Your task to perform on an android device: What's the weather? Image 0: 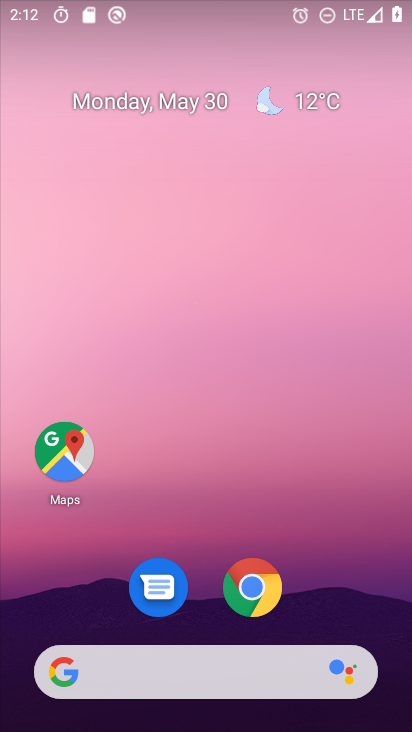
Step 0: click (308, 101)
Your task to perform on an android device: What's the weather? Image 1: 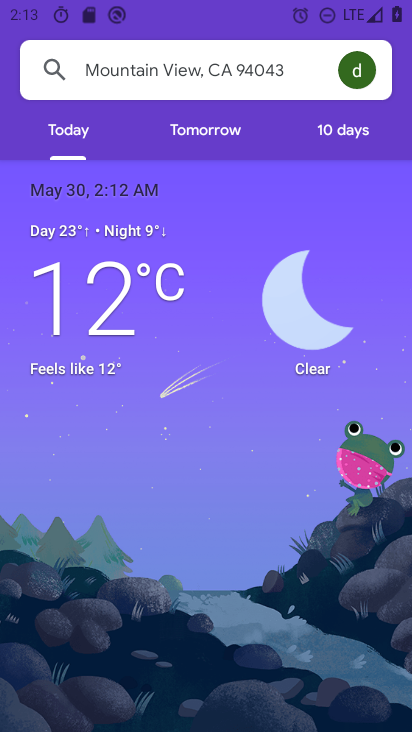
Step 1: task complete